Your task to perform on an android device: What's on my calendar today? Image 0: 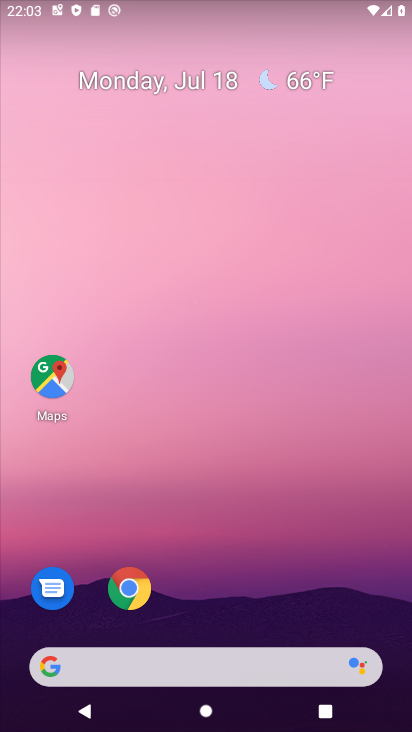
Step 0: press home button
Your task to perform on an android device: What's on my calendar today? Image 1: 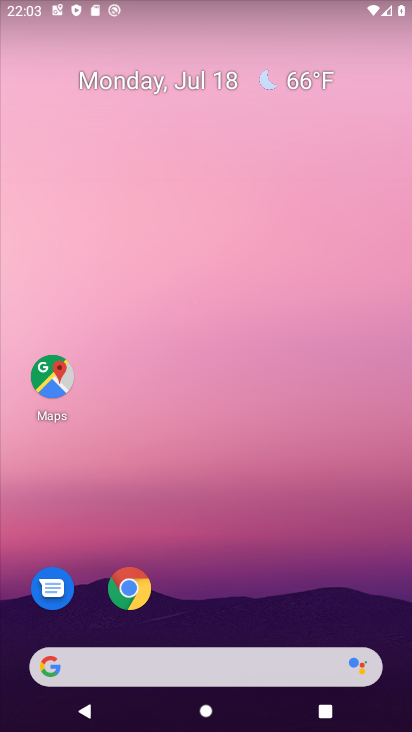
Step 1: drag from (152, 668) to (337, 102)
Your task to perform on an android device: What's on my calendar today? Image 2: 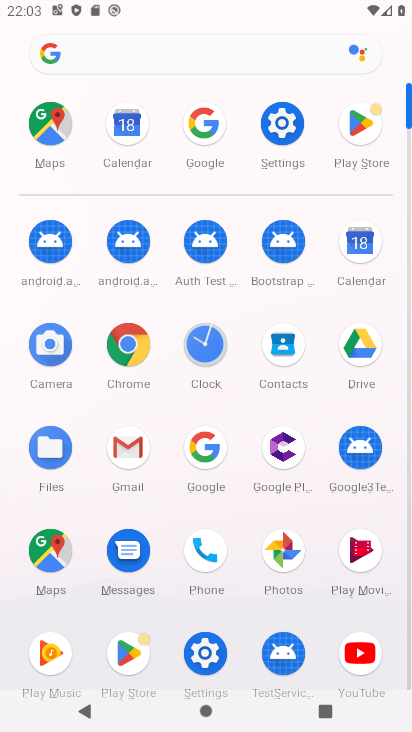
Step 2: click (359, 249)
Your task to perform on an android device: What's on my calendar today? Image 3: 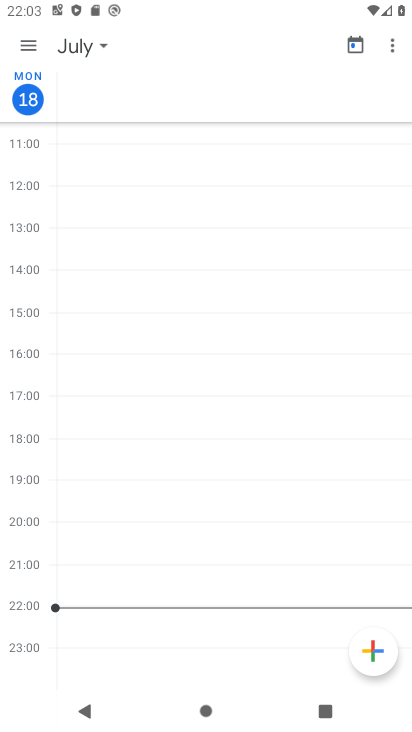
Step 3: click (29, 54)
Your task to perform on an android device: What's on my calendar today? Image 4: 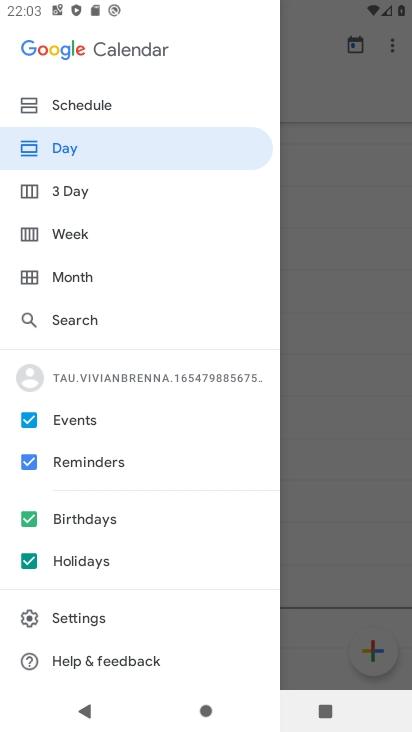
Step 4: click (74, 110)
Your task to perform on an android device: What's on my calendar today? Image 5: 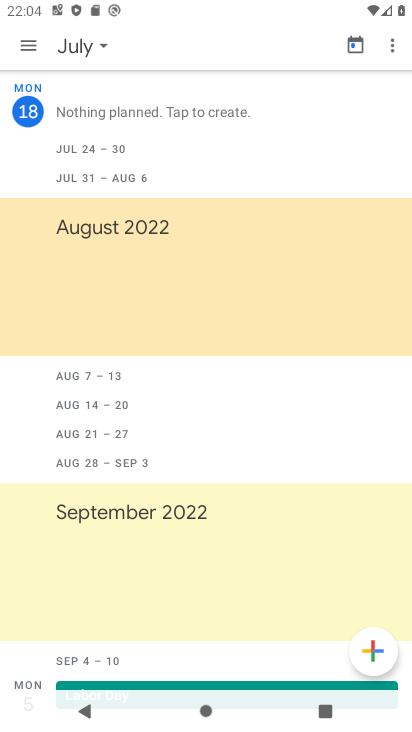
Step 5: task complete